Your task to perform on an android device: Open Google Image 0: 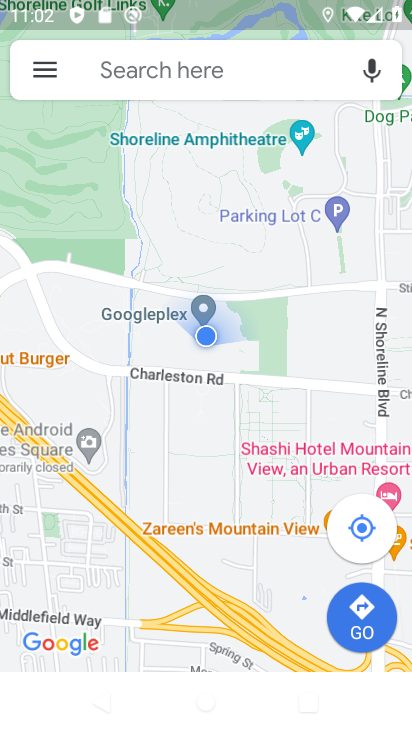
Step 0: press home button
Your task to perform on an android device: Open Google Image 1: 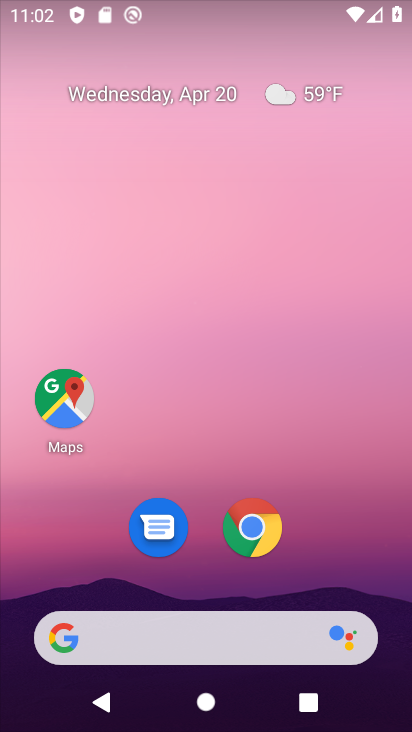
Step 1: drag from (217, 609) to (273, 225)
Your task to perform on an android device: Open Google Image 2: 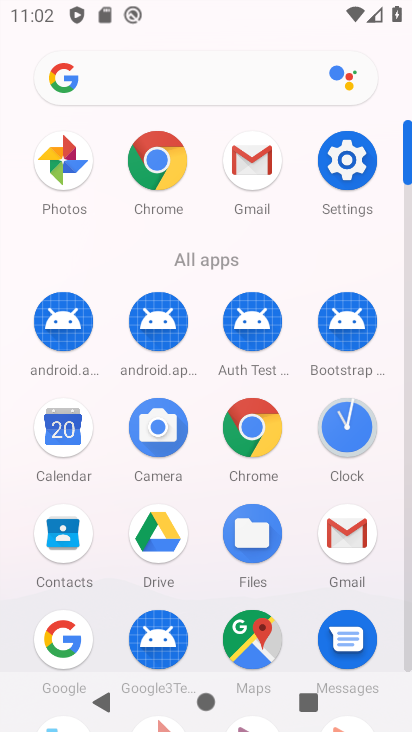
Step 2: click (56, 646)
Your task to perform on an android device: Open Google Image 3: 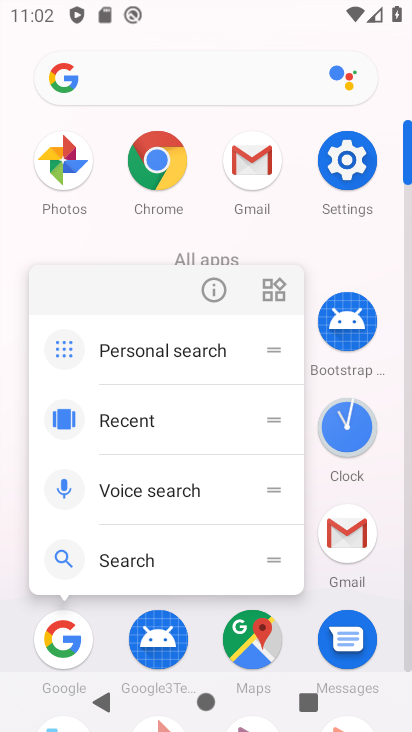
Step 3: click (62, 645)
Your task to perform on an android device: Open Google Image 4: 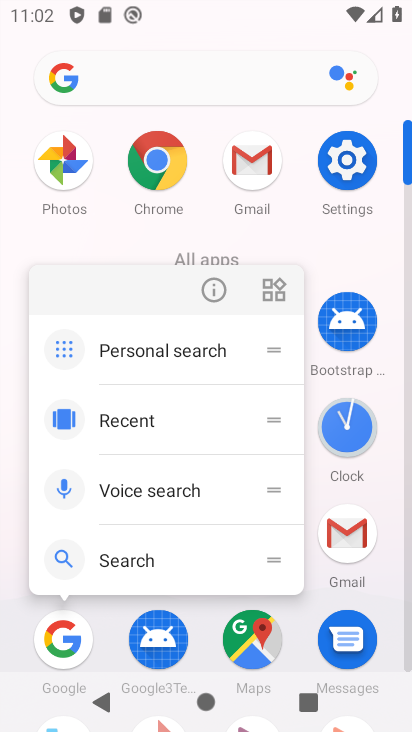
Step 4: click (62, 645)
Your task to perform on an android device: Open Google Image 5: 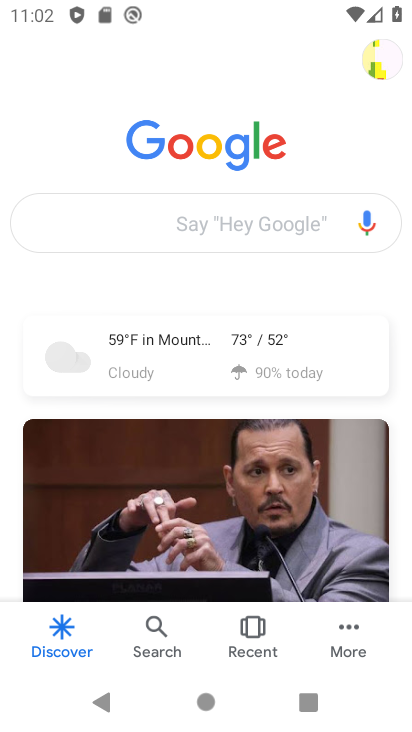
Step 5: task complete